Your task to perform on an android device: turn on airplane mode Image 0: 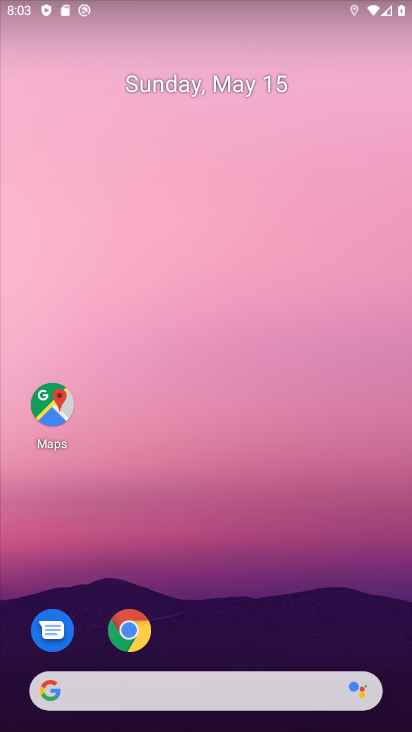
Step 0: drag from (231, 557) to (330, 30)
Your task to perform on an android device: turn on airplane mode Image 1: 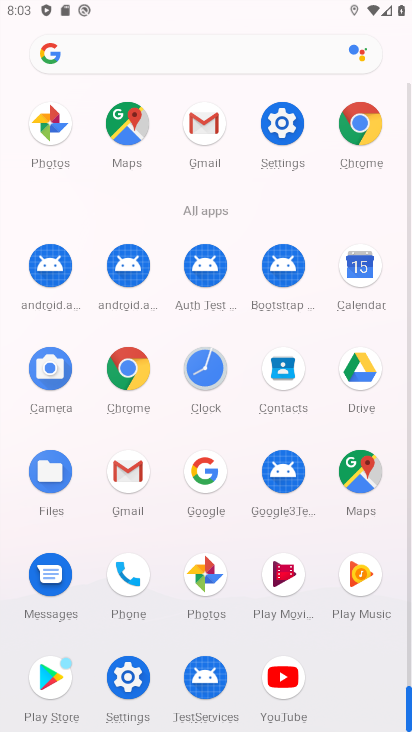
Step 1: click (277, 146)
Your task to perform on an android device: turn on airplane mode Image 2: 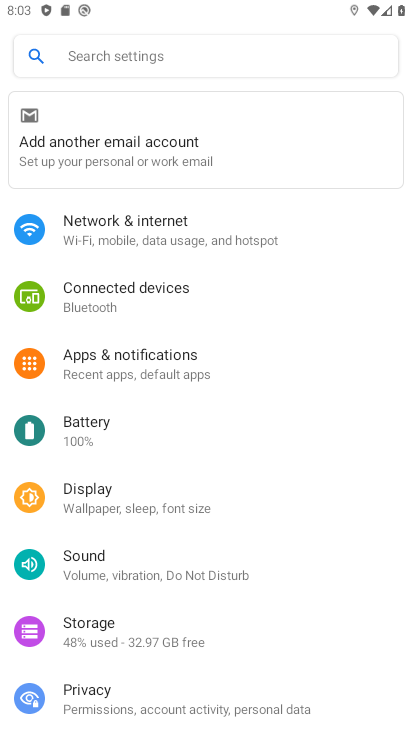
Step 2: click (176, 244)
Your task to perform on an android device: turn on airplane mode Image 3: 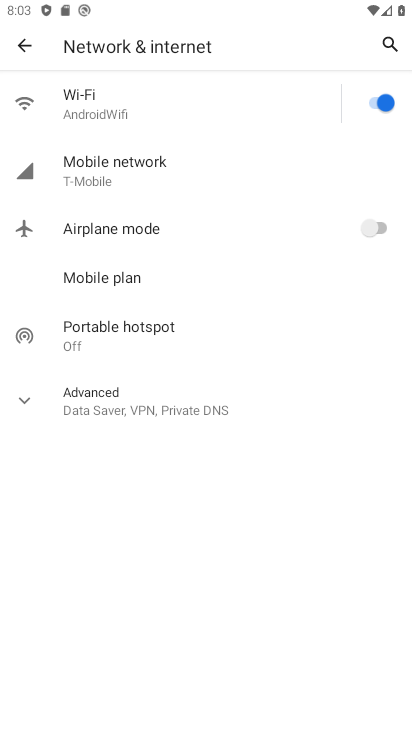
Step 3: click (385, 221)
Your task to perform on an android device: turn on airplane mode Image 4: 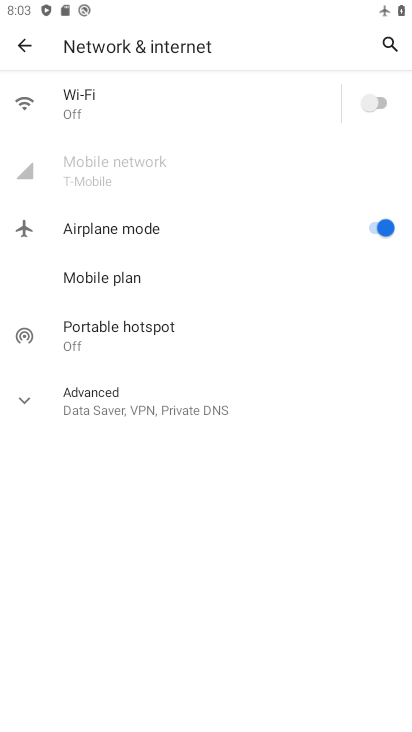
Step 4: task complete